Your task to perform on an android device: delete browsing data in the chrome app Image 0: 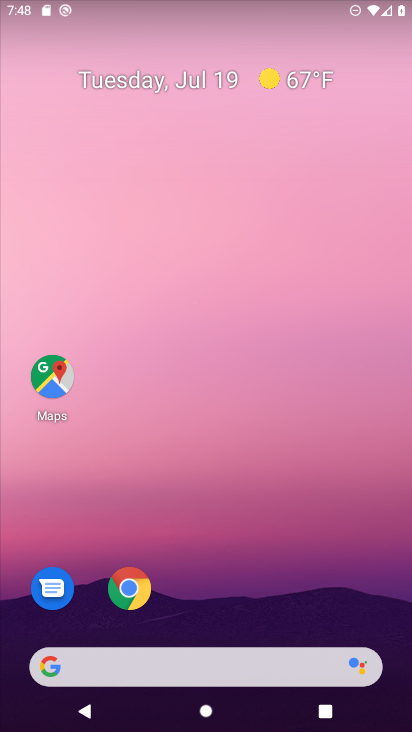
Step 0: drag from (376, 603) to (396, 178)
Your task to perform on an android device: delete browsing data in the chrome app Image 1: 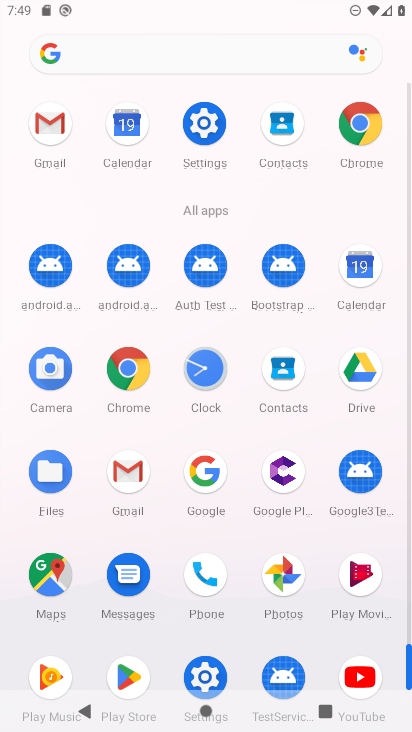
Step 1: click (127, 373)
Your task to perform on an android device: delete browsing data in the chrome app Image 2: 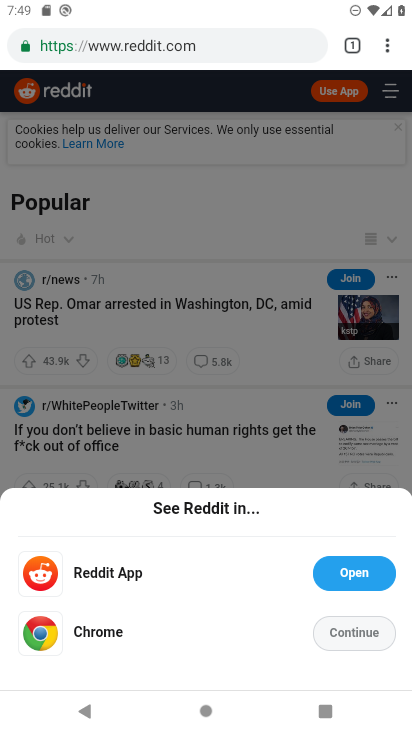
Step 2: click (387, 45)
Your task to perform on an android device: delete browsing data in the chrome app Image 3: 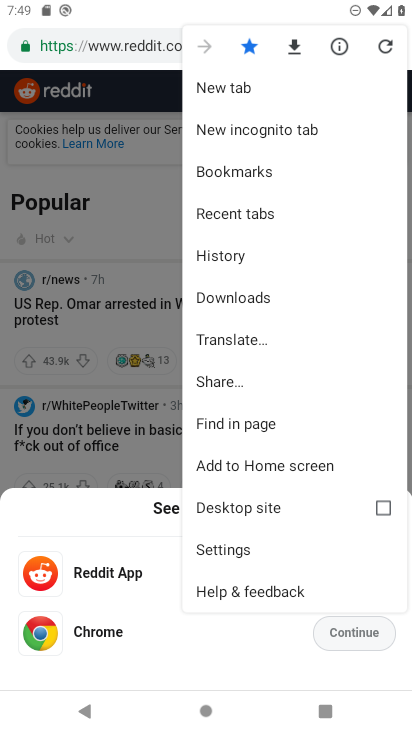
Step 3: click (248, 554)
Your task to perform on an android device: delete browsing data in the chrome app Image 4: 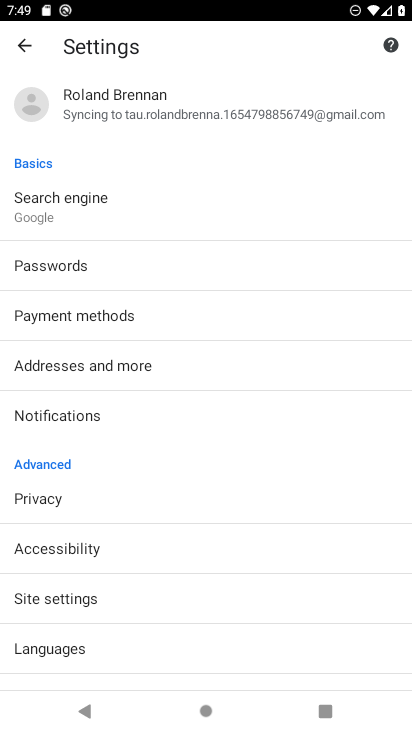
Step 4: click (205, 503)
Your task to perform on an android device: delete browsing data in the chrome app Image 5: 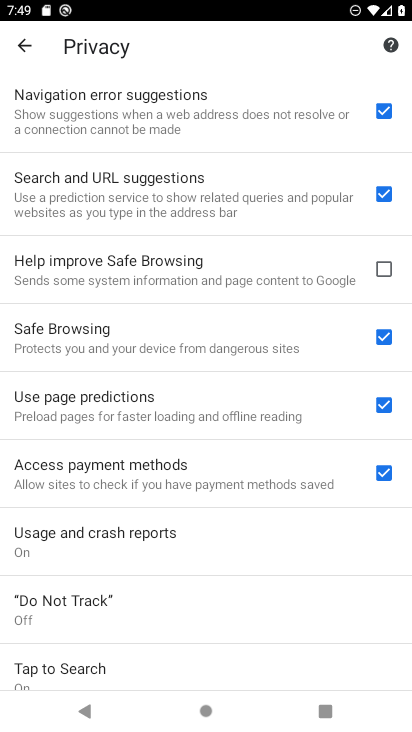
Step 5: drag from (355, 573) to (358, 523)
Your task to perform on an android device: delete browsing data in the chrome app Image 6: 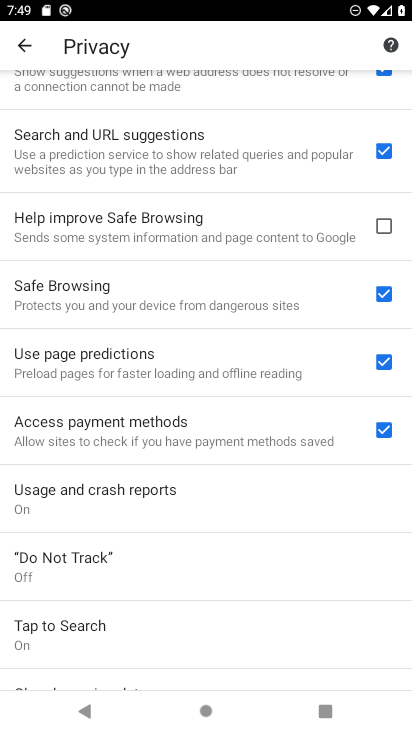
Step 6: drag from (338, 626) to (338, 552)
Your task to perform on an android device: delete browsing data in the chrome app Image 7: 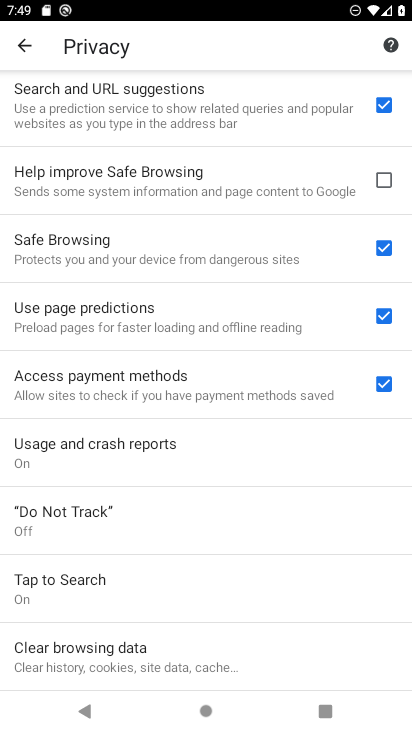
Step 7: click (322, 640)
Your task to perform on an android device: delete browsing data in the chrome app Image 8: 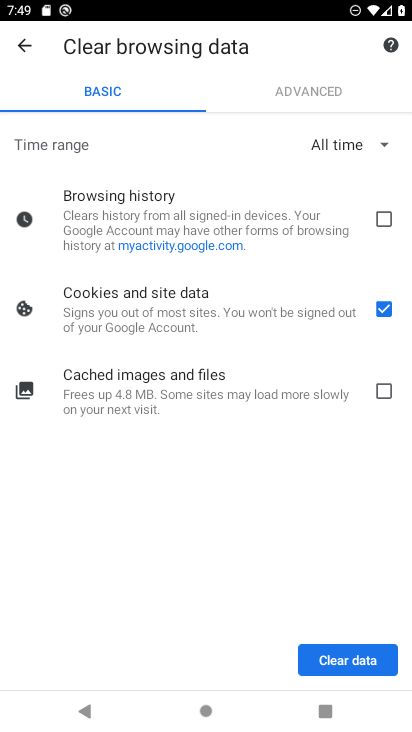
Step 8: click (382, 395)
Your task to perform on an android device: delete browsing data in the chrome app Image 9: 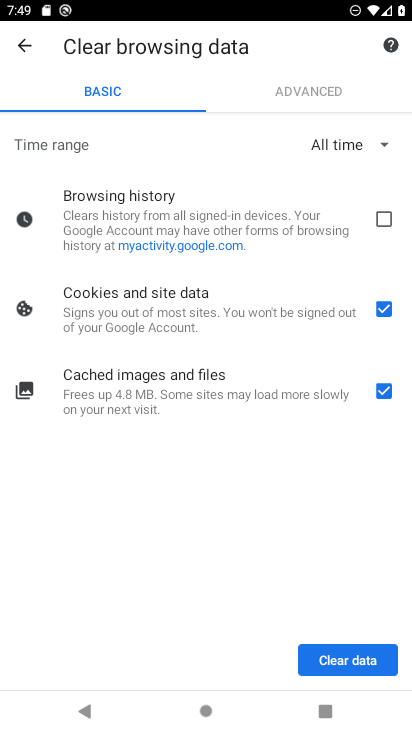
Step 9: click (380, 227)
Your task to perform on an android device: delete browsing data in the chrome app Image 10: 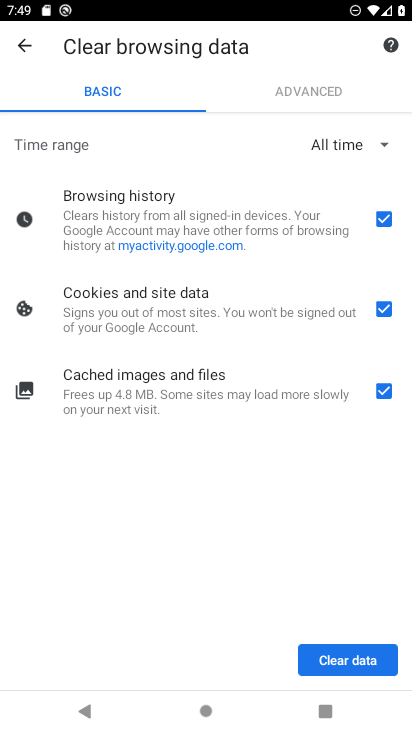
Step 10: click (355, 664)
Your task to perform on an android device: delete browsing data in the chrome app Image 11: 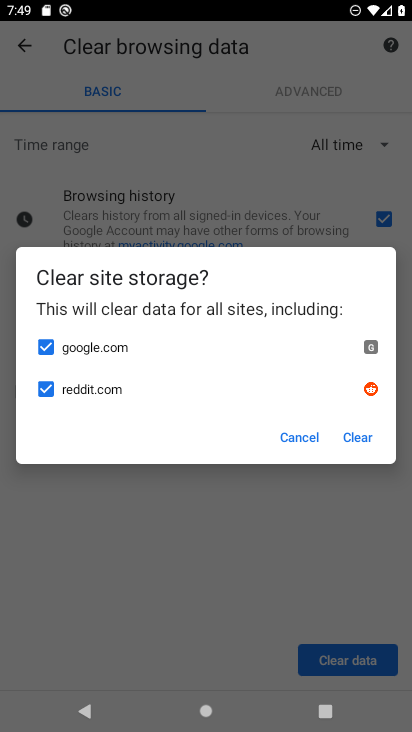
Step 11: click (351, 436)
Your task to perform on an android device: delete browsing data in the chrome app Image 12: 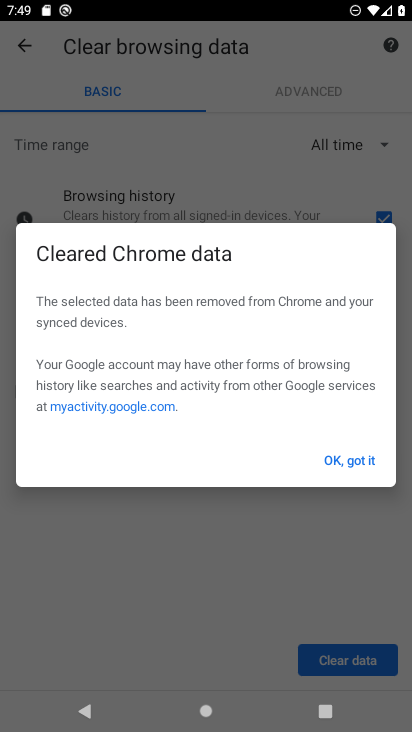
Step 12: click (355, 459)
Your task to perform on an android device: delete browsing data in the chrome app Image 13: 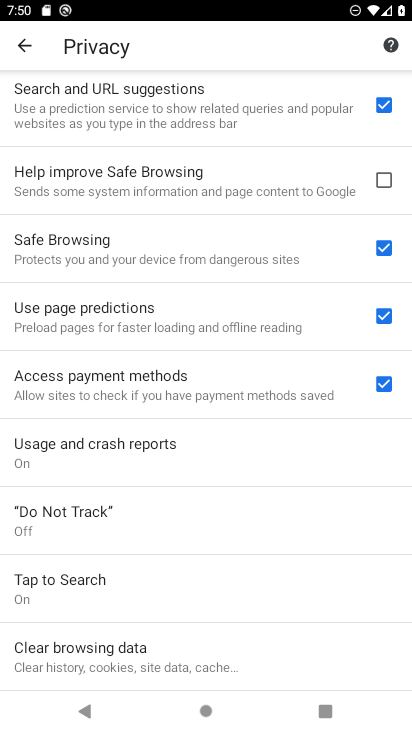
Step 13: task complete